Your task to perform on an android device: What's the latest news in space? Image 0: 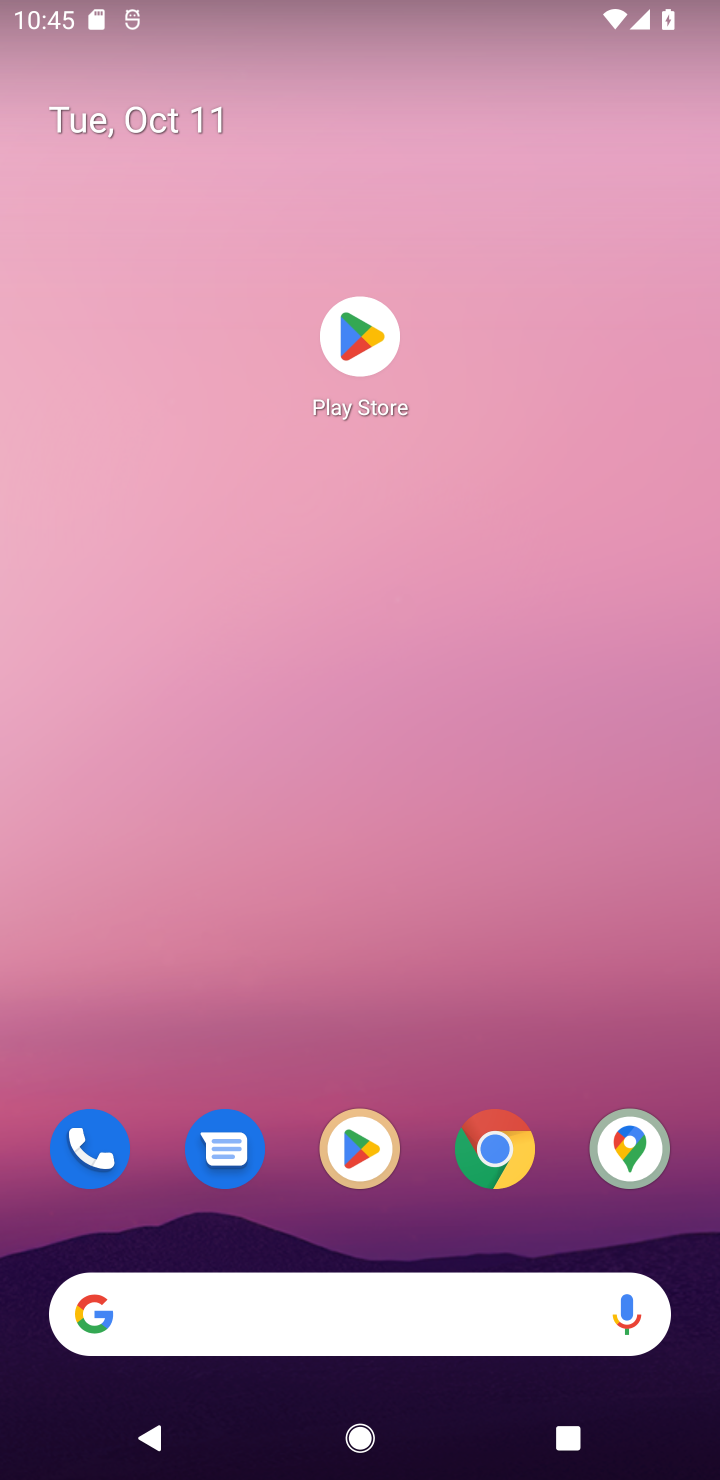
Step 0: click (452, 1310)
Your task to perform on an android device: What's the latest news in space? Image 1: 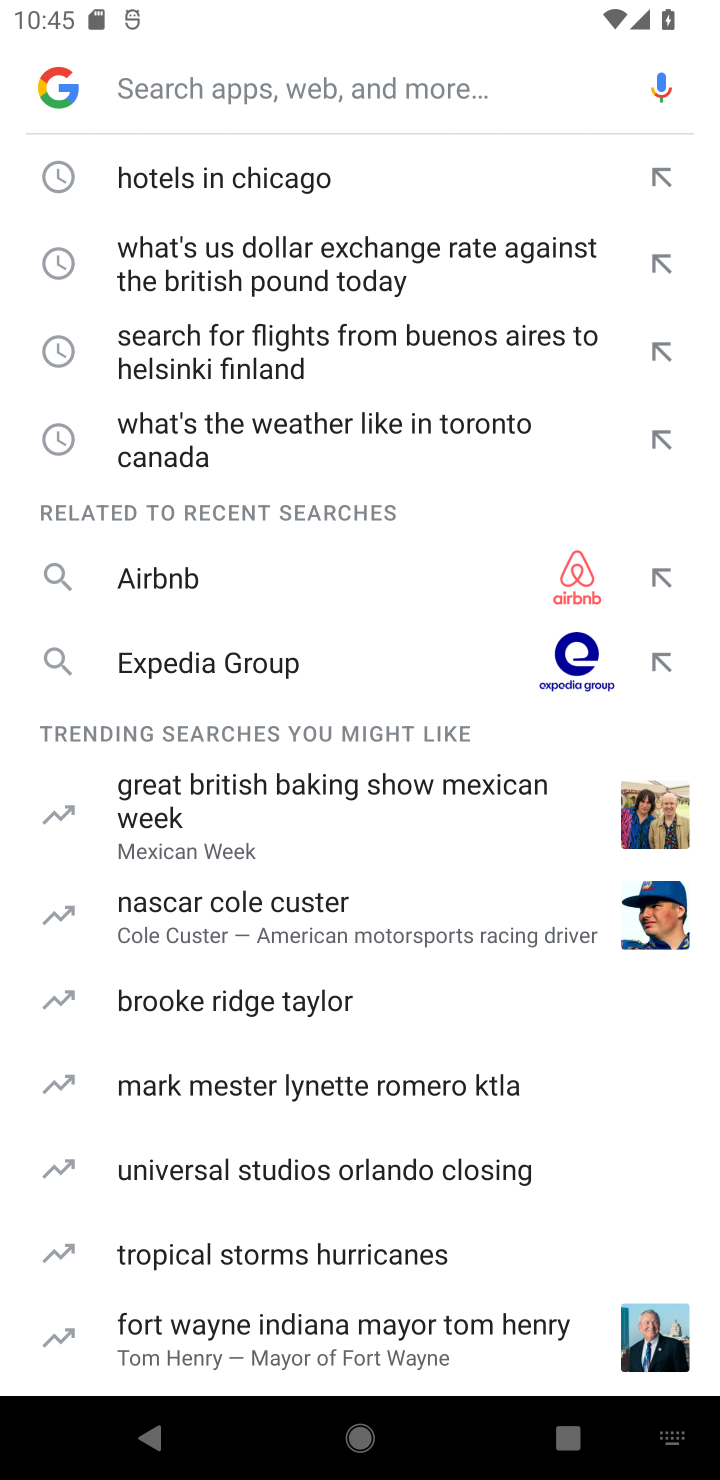
Step 1: type "What's the latest news in space?"
Your task to perform on an android device: What's the latest news in space? Image 2: 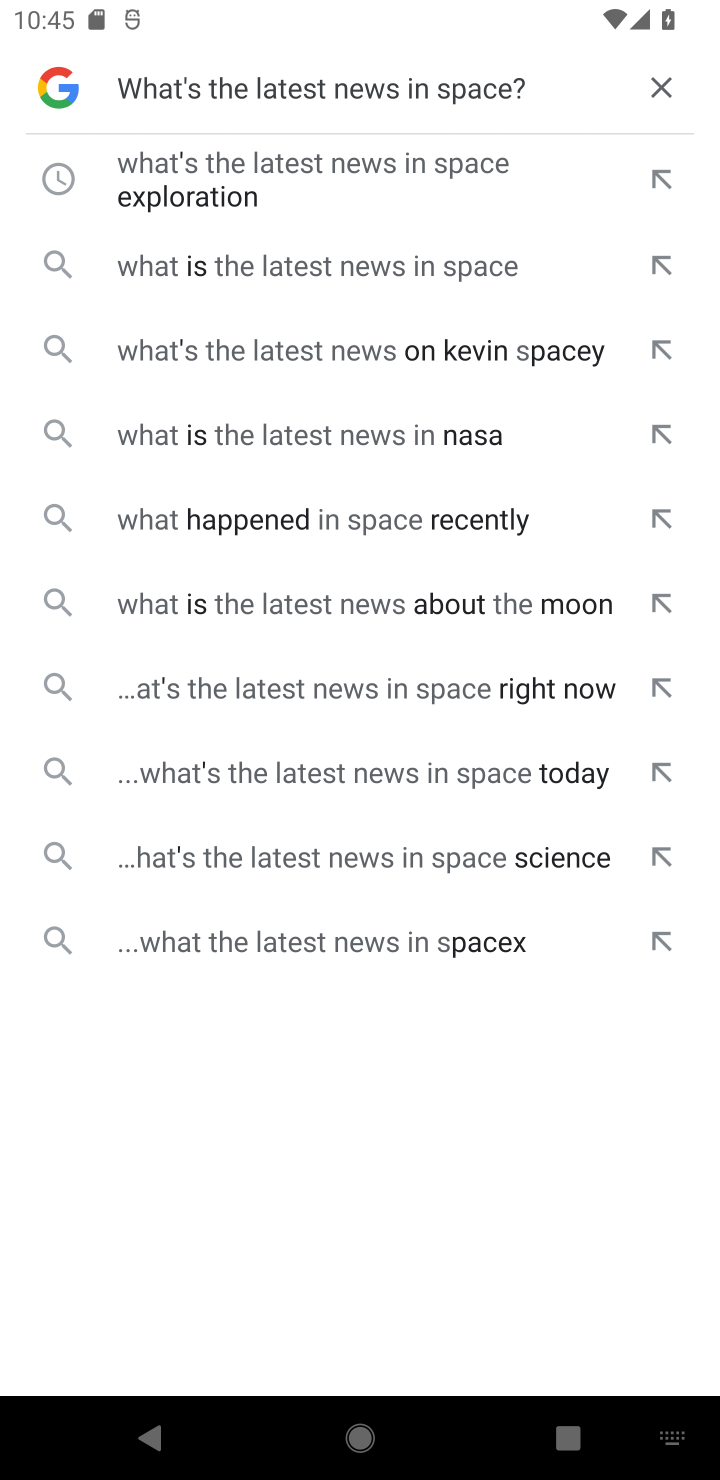
Step 2: click (345, 266)
Your task to perform on an android device: What's the latest news in space? Image 3: 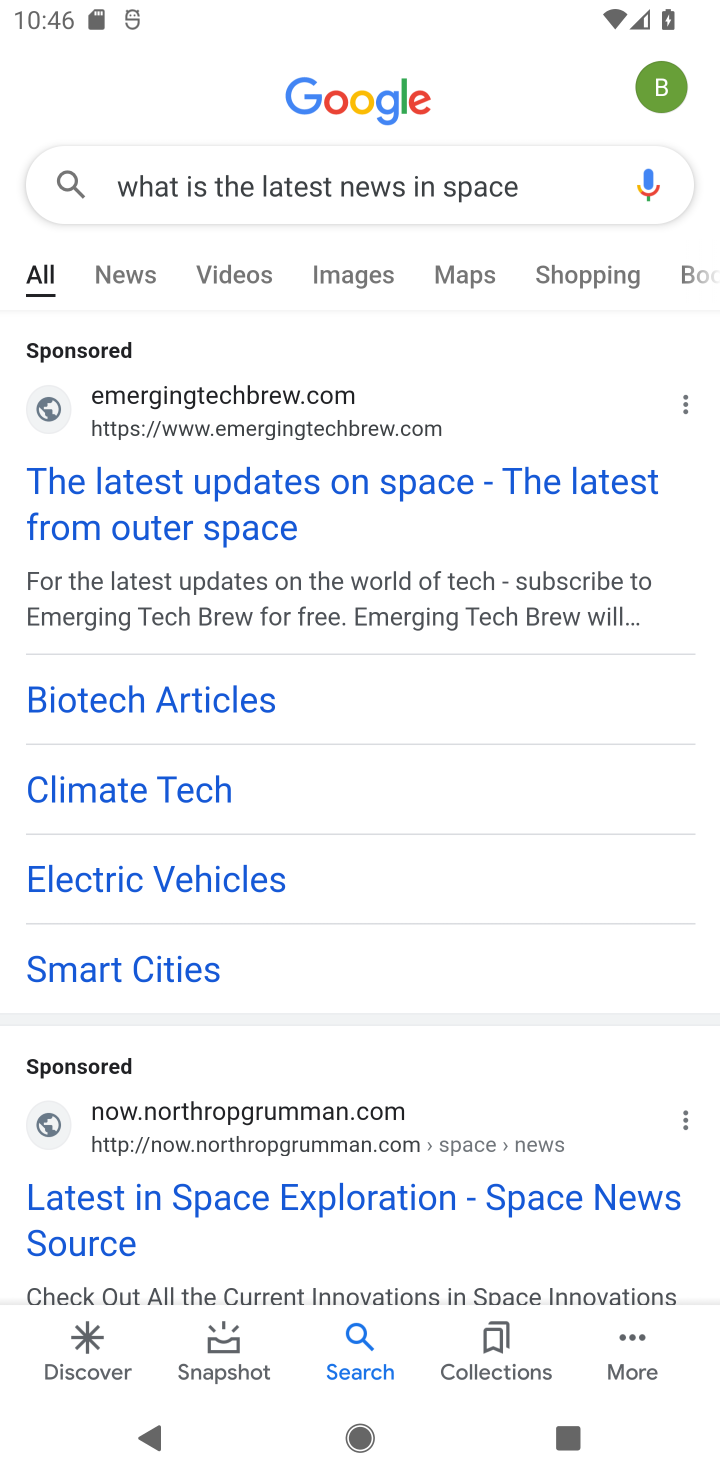
Step 3: task complete